Your task to perform on an android device: Go to calendar. Show me events next week Image 0: 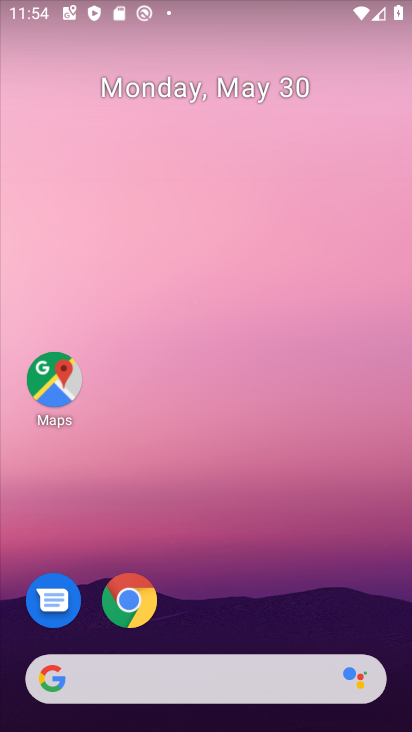
Step 0: drag from (229, 702) to (225, 117)
Your task to perform on an android device: Go to calendar. Show me events next week Image 1: 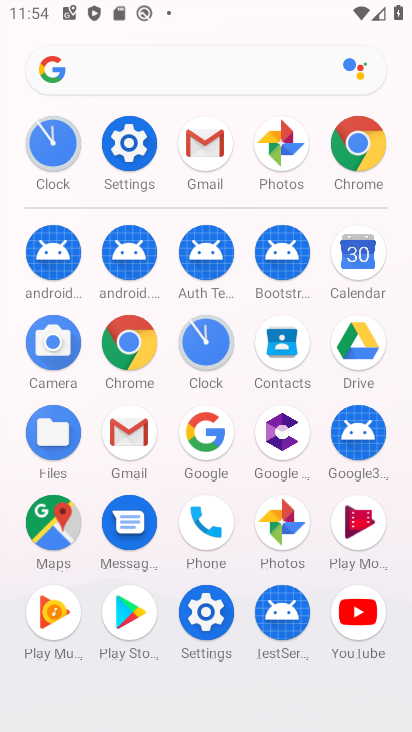
Step 1: click (356, 262)
Your task to perform on an android device: Go to calendar. Show me events next week Image 2: 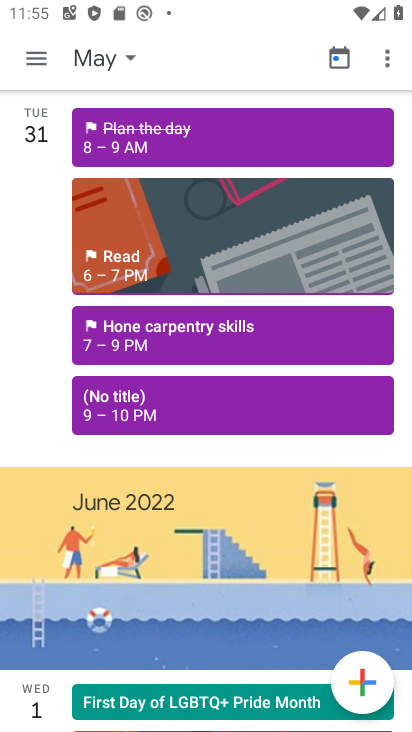
Step 2: click (96, 53)
Your task to perform on an android device: Go to calendar. Show me events next week Image 3: 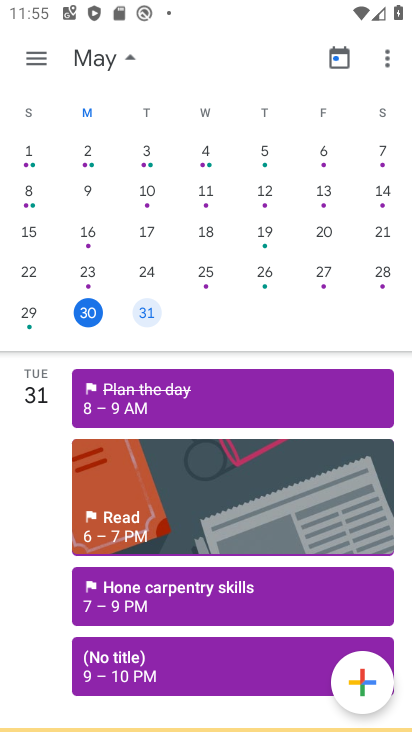
Step 3: drag from (339, 244) to (7, 264)
Your task to perform on an android device: Go to calendar. Show me events next week Image 4: 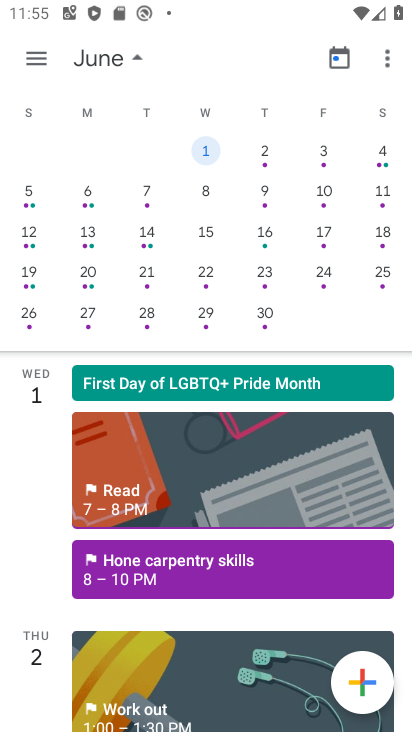
Step 4: click (87, 190)
Your task to perform on an android device: Go to calendar. Show me events next week Image 5: 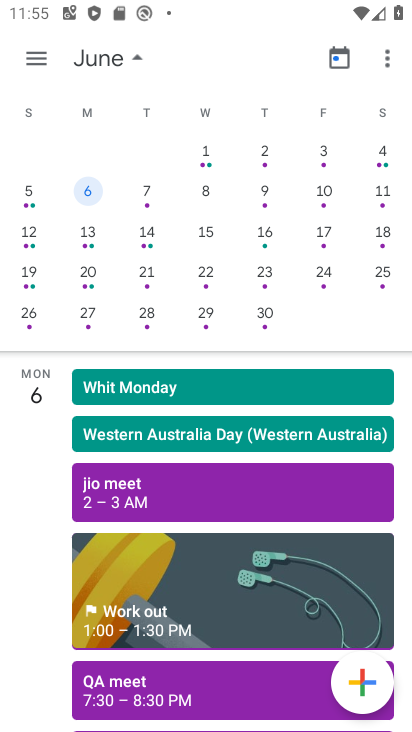
Step 5: click (36, 54)
Your task to perform on an android device: Go to calendar. Show me events next week Image 6: 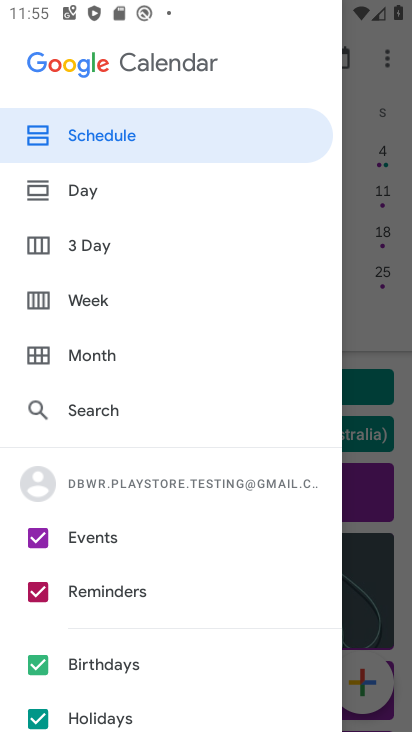
Step 6: click (44, 717)
Your task to perform on an android device: Go to calendar. Show me events next week Image 7: 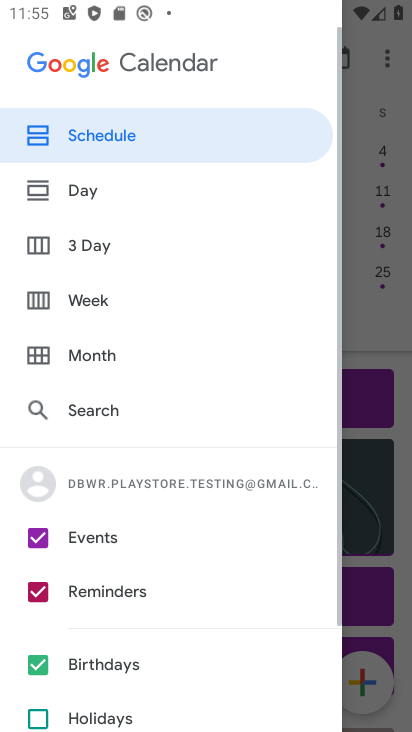
Step 7: click (39, 665)
Your task to perform on an android device: Go to calendar. Show me events next week Image 8: 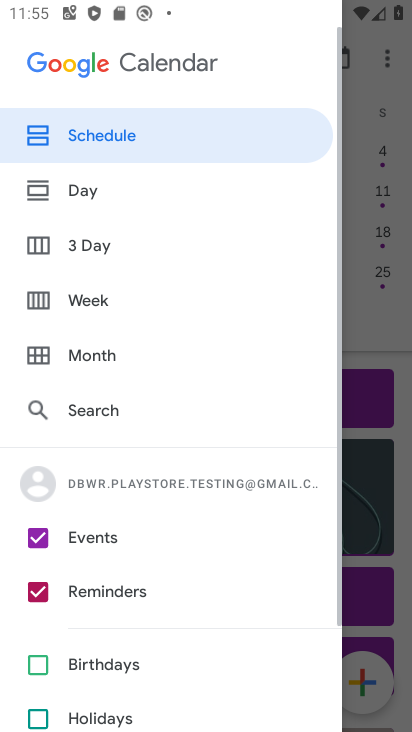
Step 8: click (43, 590)
Your task to perform on an android device: Go to calendar. Show me events next week Image 9: 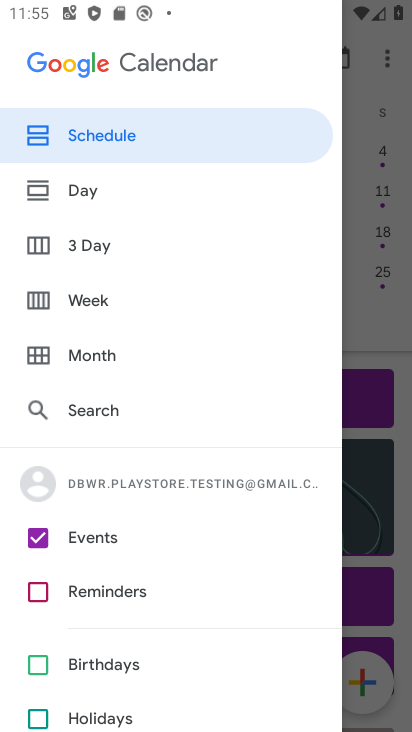
Step 9: click (90, 304)
Your task to perform on an android device: Go to calendar. Show me events next week Image 10: 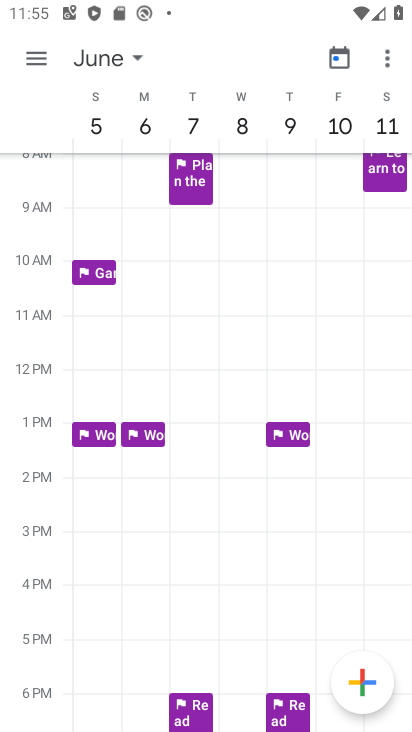
Step 10: task complete